Your task to perform on an android device: Go to network settings Image 0: 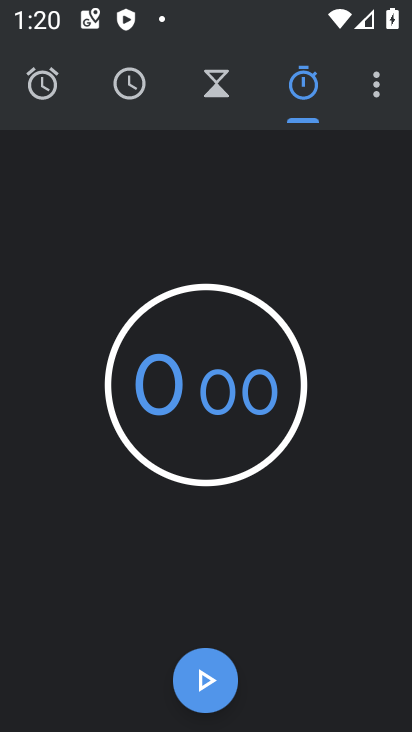
Step 0: press home button
Your task to perform on an android device: Go to network settings Image 1: 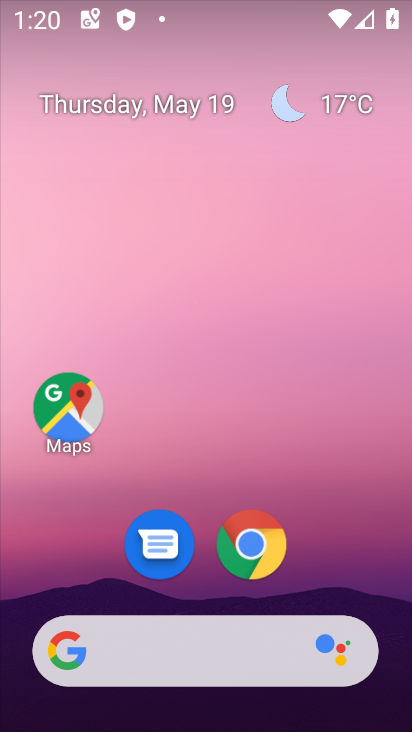
Step 1: drag from (259, 698) to (278, 213)
Your task to perform on an android device: Go to network settings Image 2: 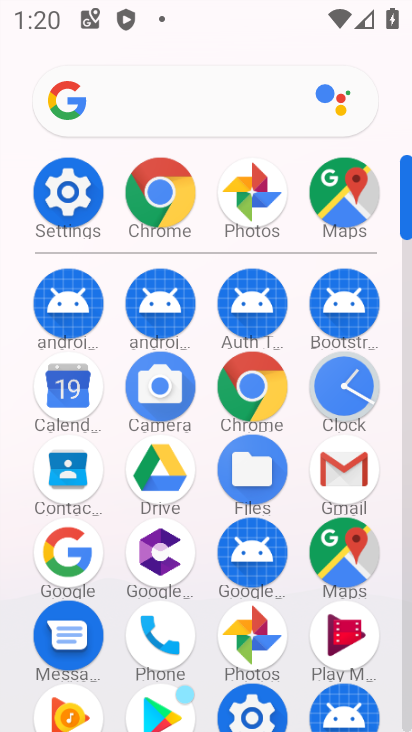
Step 2: click (68, 188)
Your task to perform on an android device: Go to network settings Image 3: 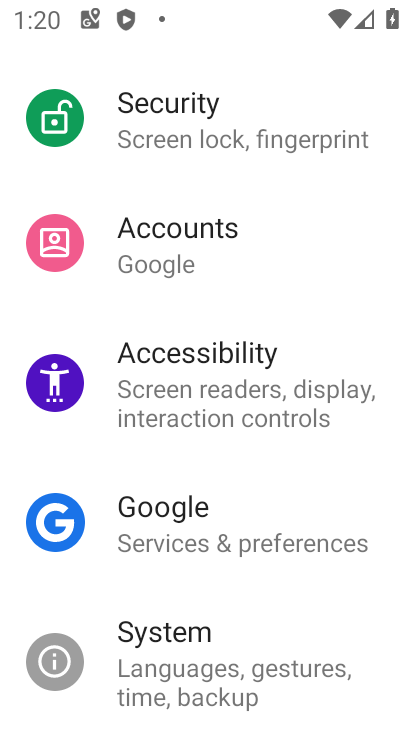
Step 3: drag from (207, 216) to (204, 577)
Your task to perform on an android device: Go to network settings Image 4: 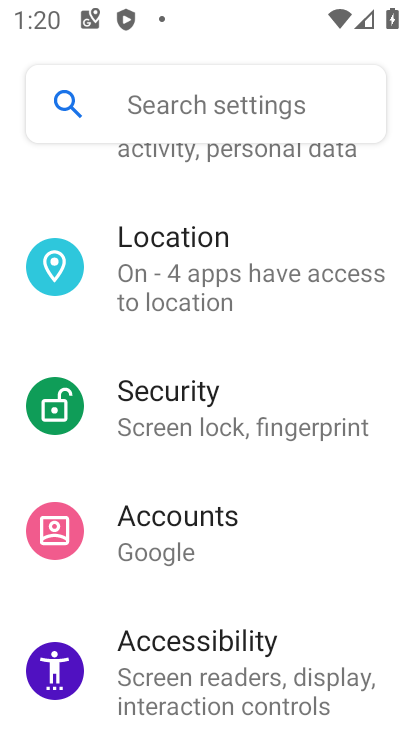
Step 4: drag from (196, 215) to (227, 711)
Your task to perform on an android device: Go to network settings Image 5: 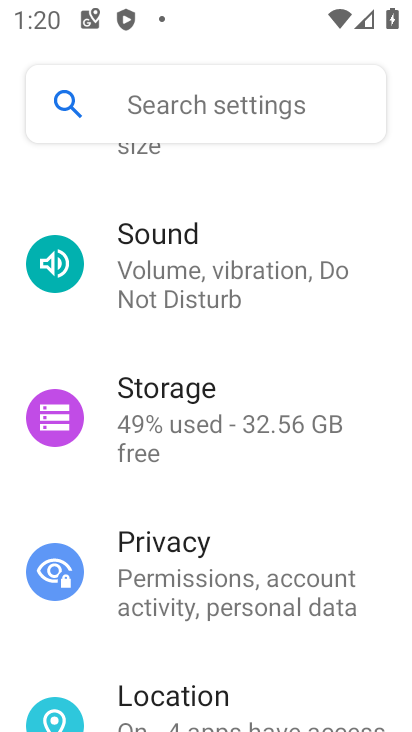
Step 5: drag from (252, 214) to (247, 584)
Your task to perform on an android device: Go to network settings Image 6: 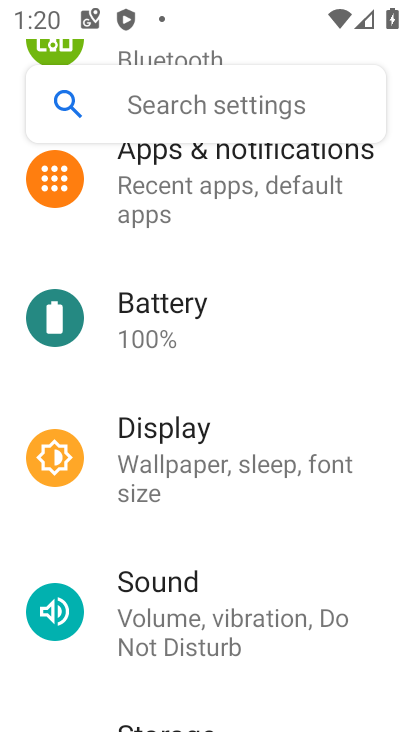
Step 6: drag from (254, 207) to (250, 584)
Your task to perform on an android device: Go to network settings Image 7: 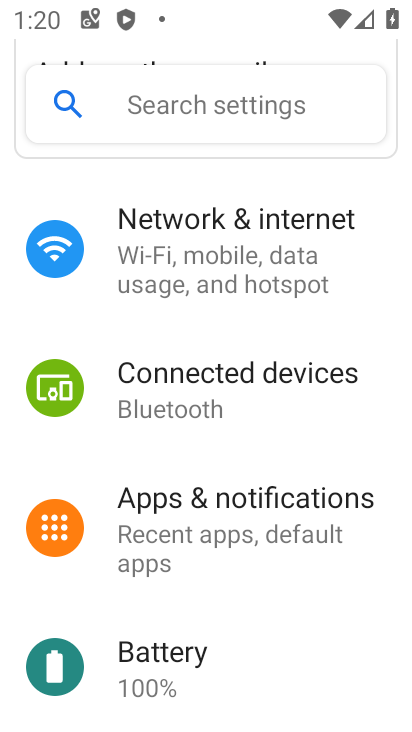
Step 7: drag from (209, 278) to (209, 506)
Your task to perform on an android device: Go to network settings Image 8: 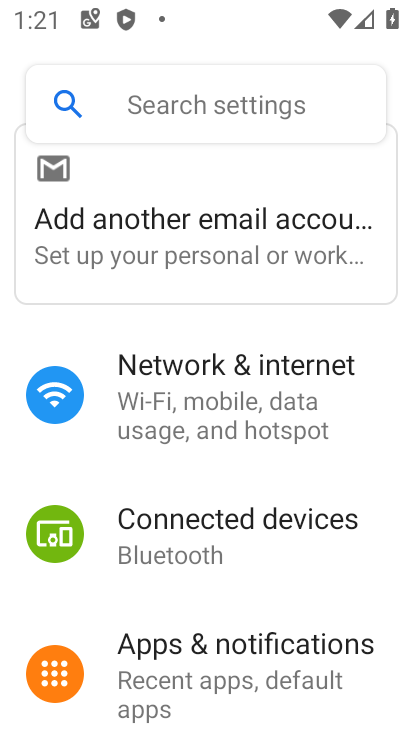
Step 8: click (166, 411)
Your task to perform on an android device: Go to network settings Image 9: 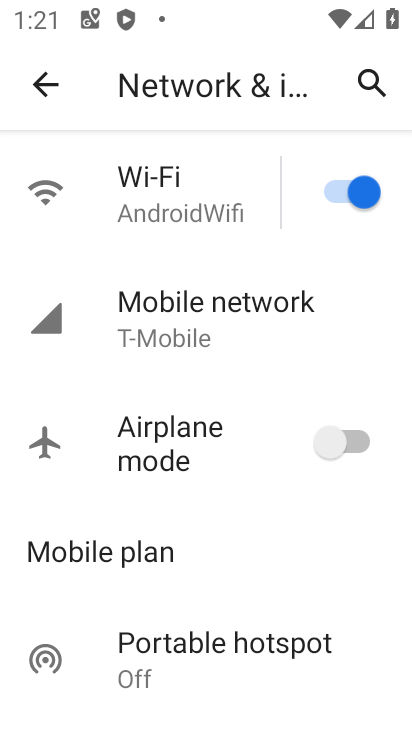
Step 9: click (140, 326)
Your task to perform on an android device: Go to network settings Image 10: 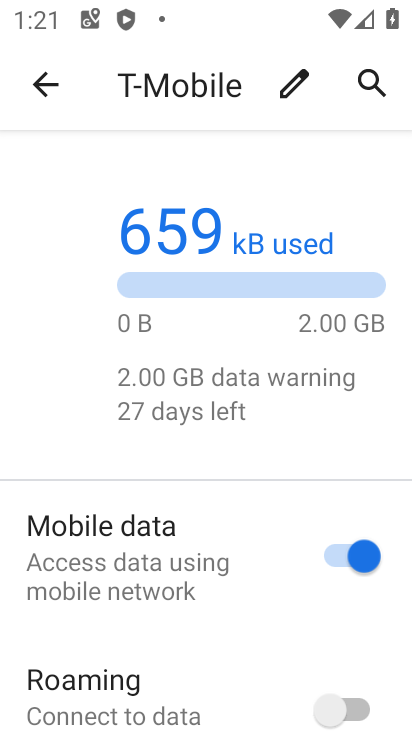
Step 10: task complete